Your task to perform on an android device: Open calendar and show me the second week of next month Image 0: 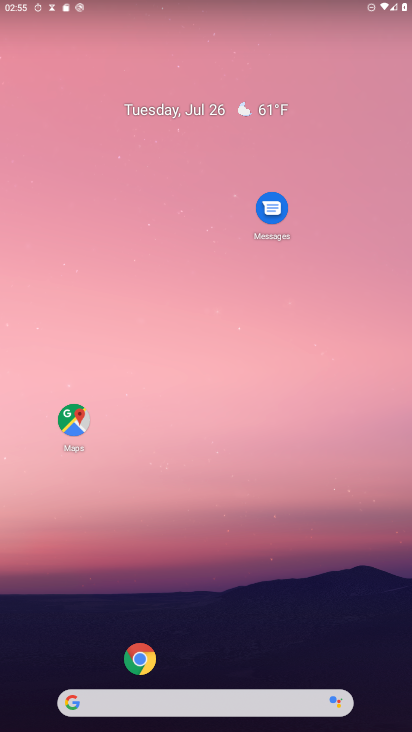
Step 0: drag from (40, 700) to (131, 315)
Your task to perform on an android device: Open calendar and show me the second week of next month Image 1: 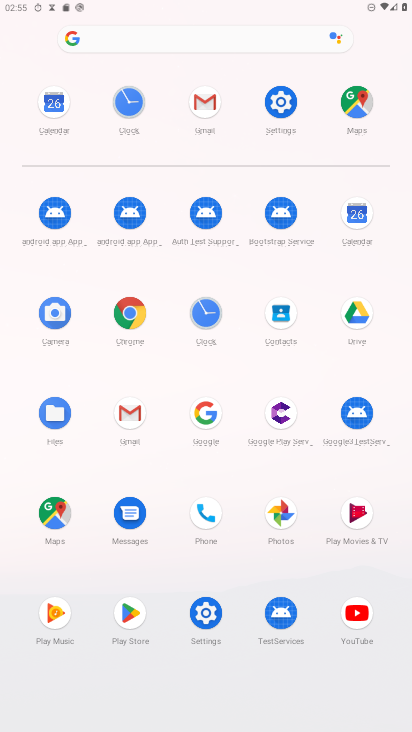
Step 1: click (366, 224)
Your task to perform on an android device: Open calendar and show me the second week of next month Image 2: 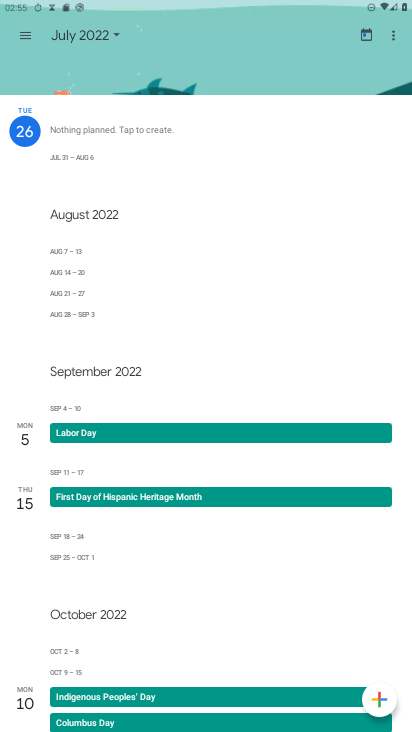
Step 2: click (104, 41)
Your task to perform on an android device: Open calendar and show me the second week of next month Image 3: 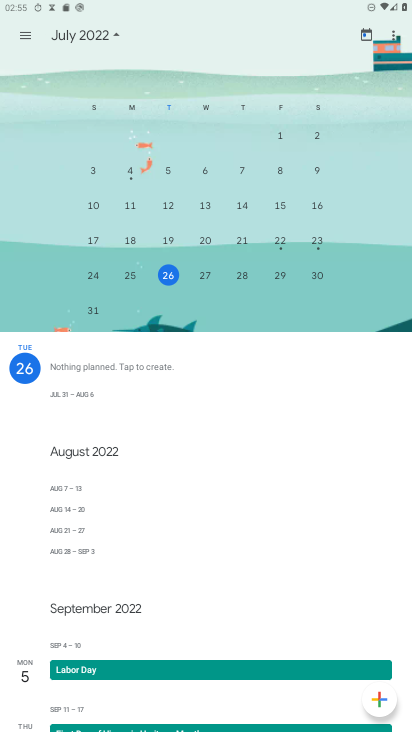
Step 3: drag from (367, 145) to (65, 519)
Your task to perform on an android device: Open calendar and show me the second week of next month Image 4: 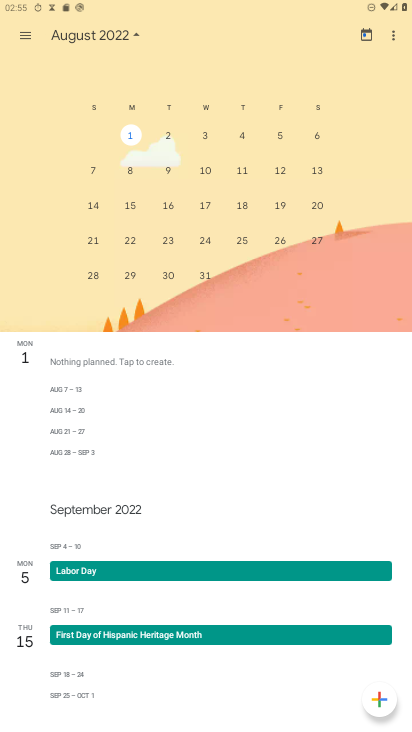
Step 4: click (125, 168)
Your task to perform on an android device: Open calendar and show me the second week of next month Image 5: 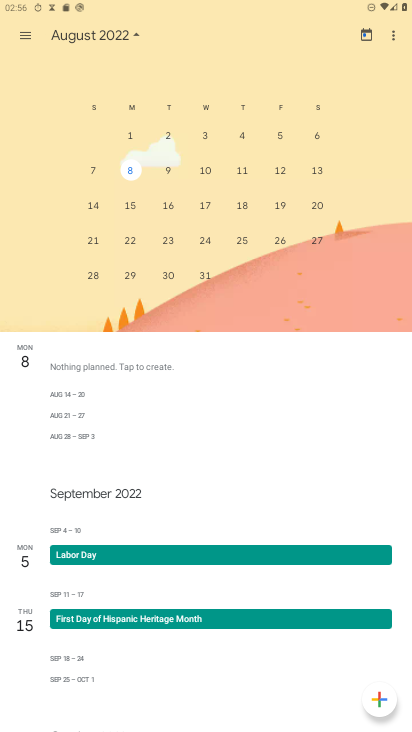
Step 5: task complete